Your task to perform on an android device: turn notification dots on Image 0: 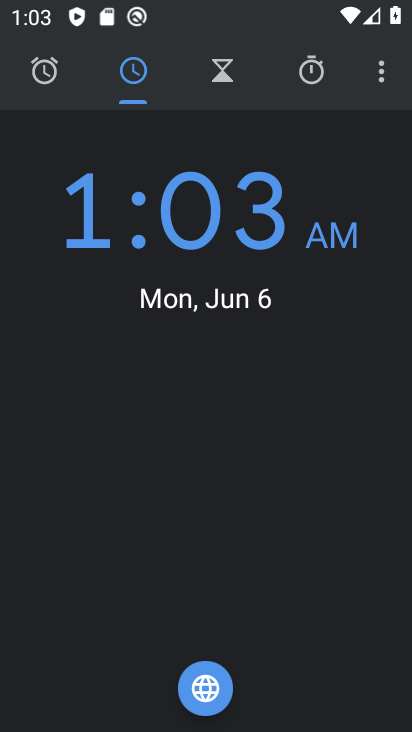
Step 0: press home button
Your task to perform on an android device: turn notification dots on Image 1: 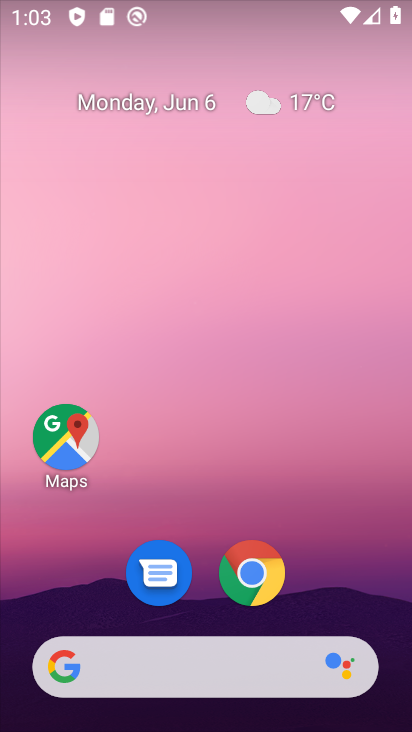
Step 1: drag from (382, 574) to (397, 141)
Your task to perform on an android device: turn notification dots on Image 2: 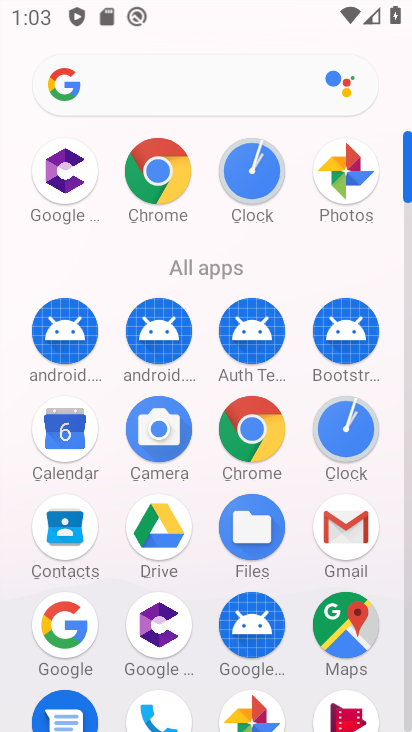
Step 2: drag from (381, 575) to (397, 262)
Your task to perform on an android device: turn notification dots on Image 3: 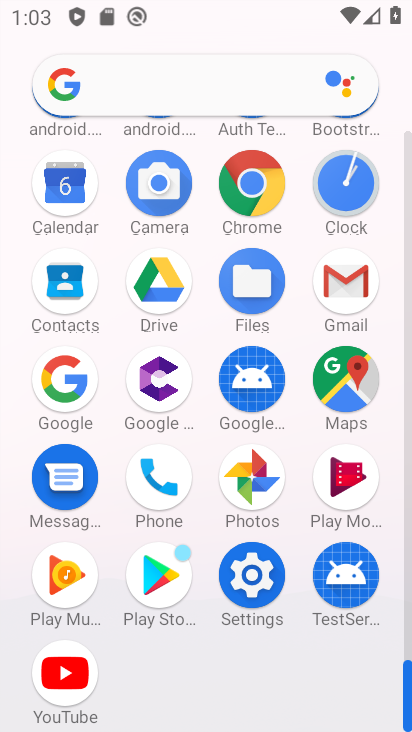
Step 3: click (256, 567)
Your task to perform on an android device: turn notification dots on Image 4: 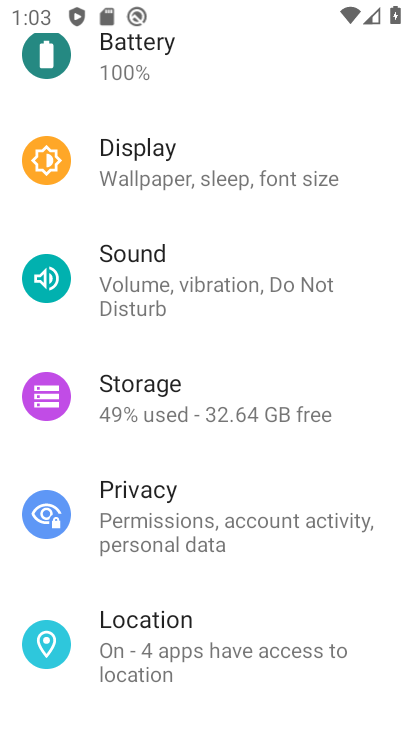
Step 4: drag from (354, 355) to (367, 539)
Your task to perform on an android device: turn notification dots on Image 5: 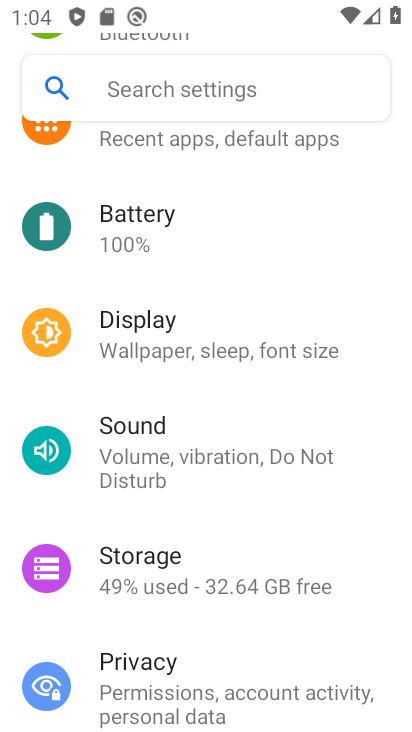
Step 5: drag from (374, 299) to (374, 431)
Your task to perform on an android device: turn notification dots on Image 6: 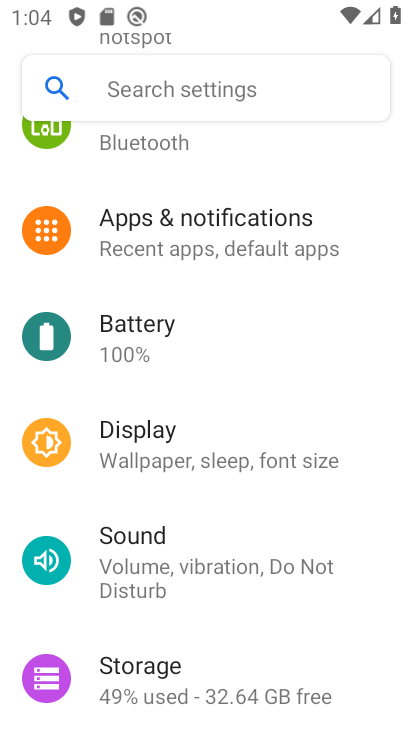
Step 6: drag from (367, 237) to (345, 420)
Your task to perform on an android device: turn notification dots on Image 7: 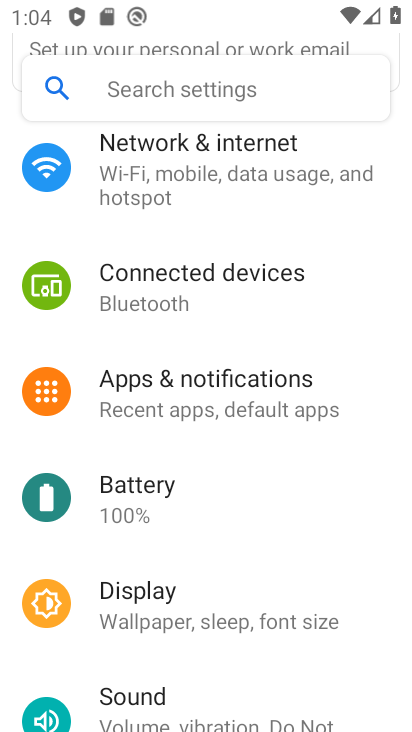
Step 7: click (256, 397)
Your task to perform on an android device: turn notification dots on Image 8: 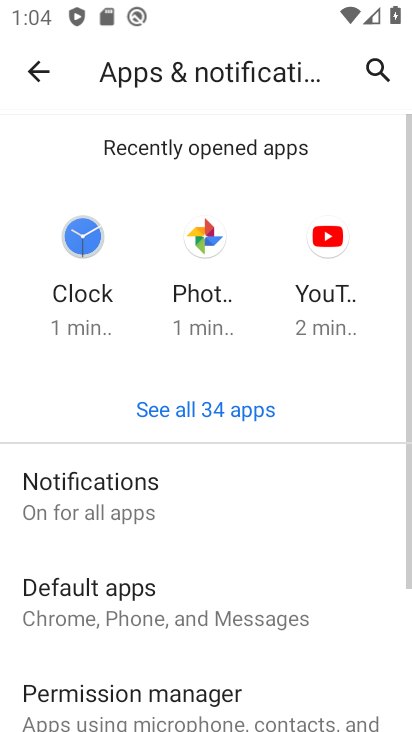
Step 8: click (178, 490)
Your task to perform on an android device: turn notification dots on Image 9: 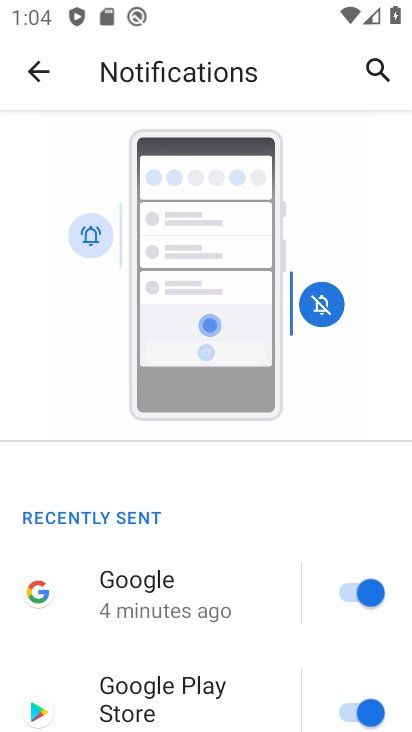
Step 9: drag from (270, 591) to (270, 459)
Your task to perform on an android device: turn notification dots on Image 10: 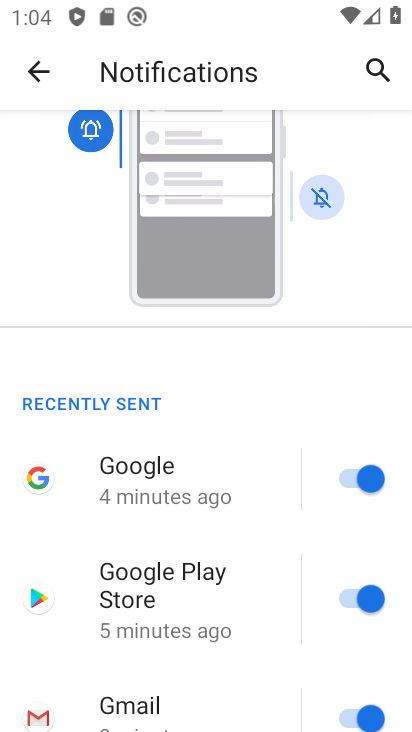
Step 10: drag from (258, 597) to (257, 467)
Your task to perform on an android device: turn notification dots on Image 11: 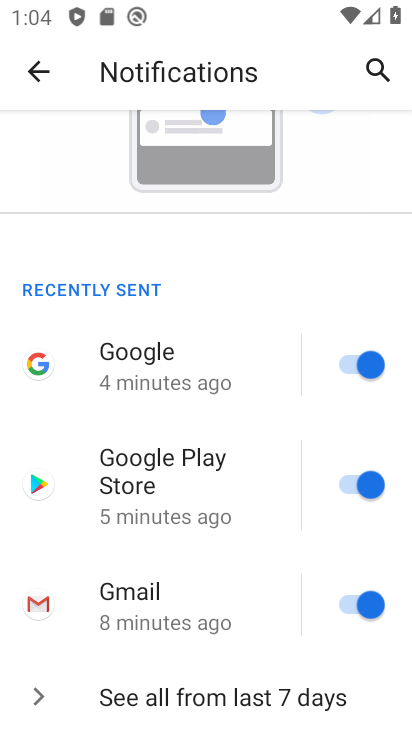
Step 11: drag from (270, 614) to (271, 450)
Your task to perform on an android device: turn notification dots on Image 12: 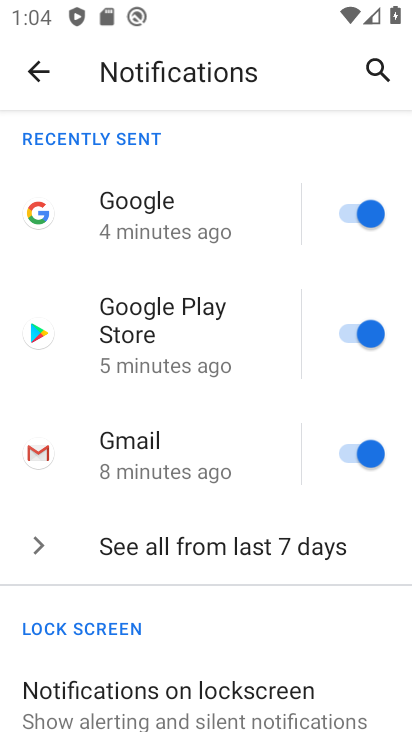
Step 12: drag from (279, 609) to (283, 383)
Your task to perform on an android device: turn notification dots on Image 13: 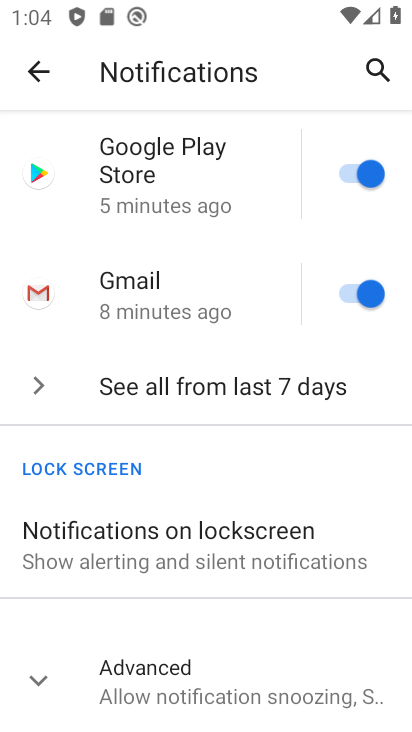
Step 13: click (256, 666)
Your task to perform on an android device: turn notification dots on Image 14: 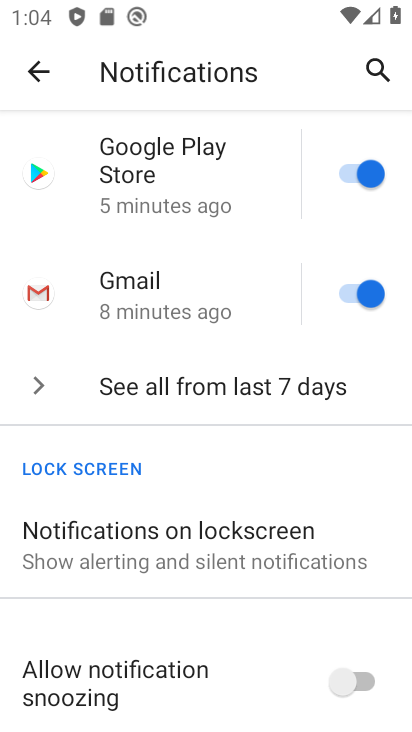
Step 14: task complete